Your task to perform on an android device: Open Chrome and go to settings Image 0: 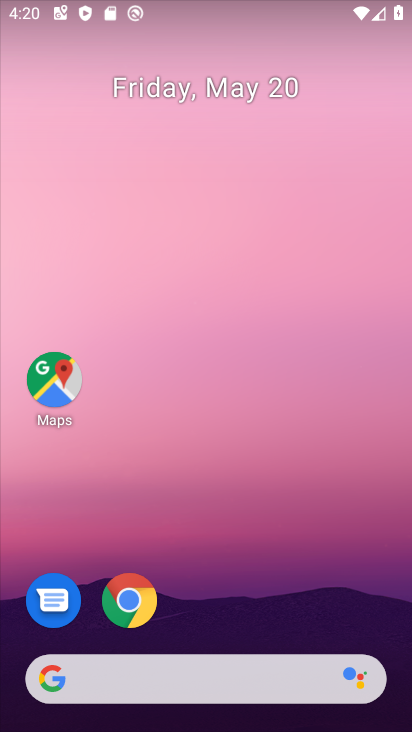
Step 0: click (148, 593)
Your task to perform on an android device: Open Chrome and go to settings Image 1: 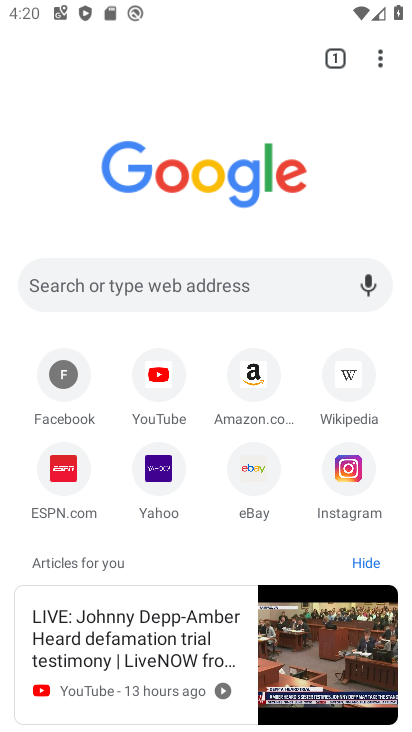
Step 1: click (376, 54)
Your task to perform on an android device: Open Chrome and go to settings Image 2: 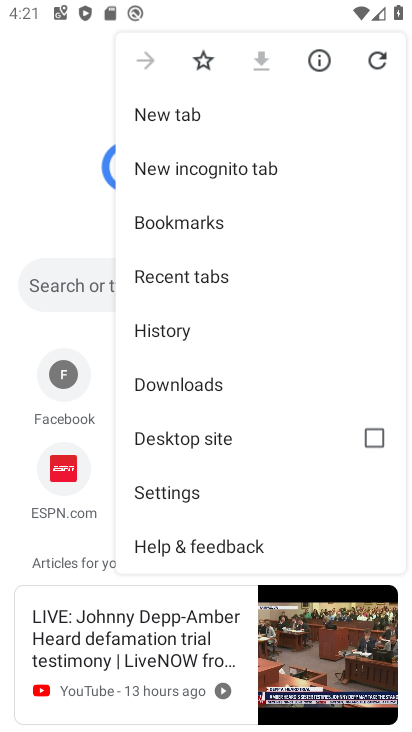
Step 2: click (216, 486)
Your task to perform on an android device: Open Chrome and go to settings Image 3: 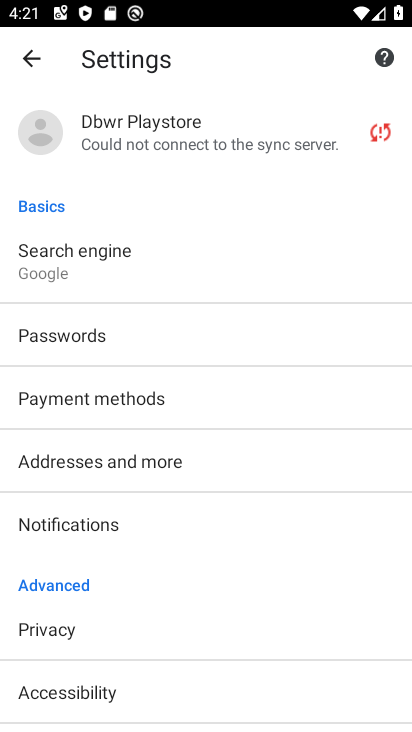
Step 3: task complete